Your task to perform on an android device: toggle location history Image 0: 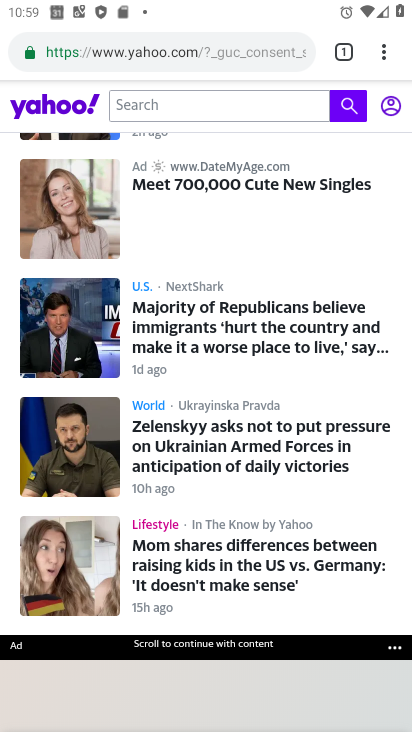
Step 0: press home button
Your task to perform on an android device: toggle location history Image 1: 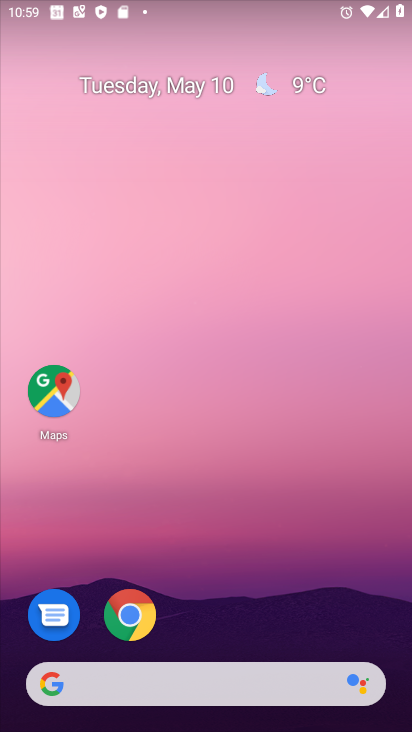
Step 1: drag from (208, 633) to (254, 186)
Your task to perform on an android device: toggle location history Image 2: 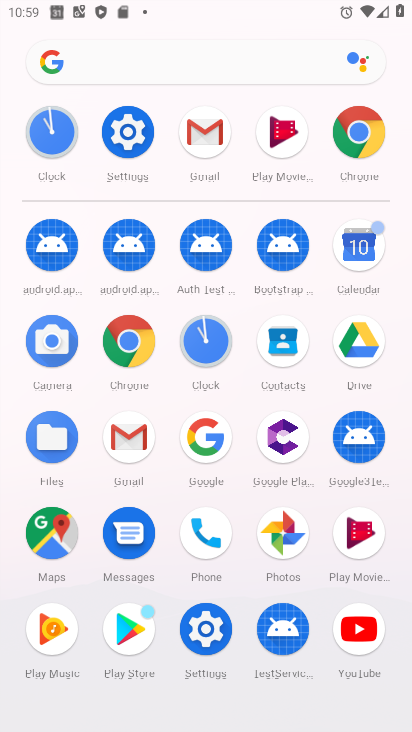
Step 2: click (132, 137)
Your task to perform on an android device: toggle location history Image 3: 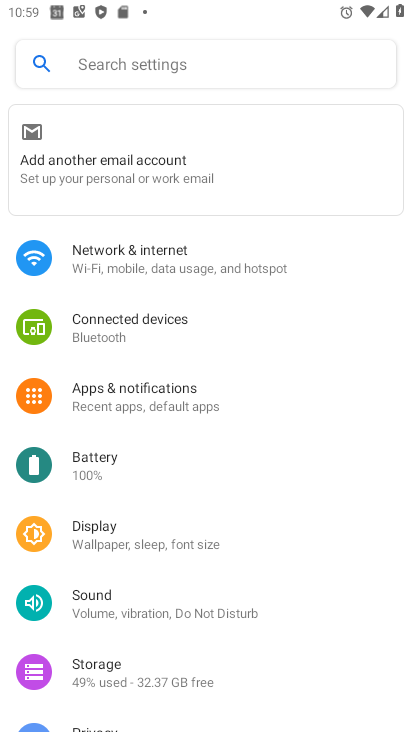
Step 3: drag from (146, 672) to (212, 257)
Your task to perform on an android device: toggle location history Image 4: 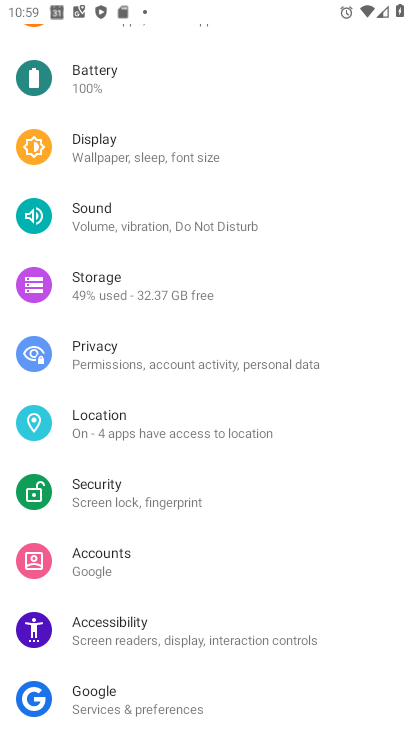
Step 4: click (111, 404)
Your task to perform on an android device: toggle location history Image 5: 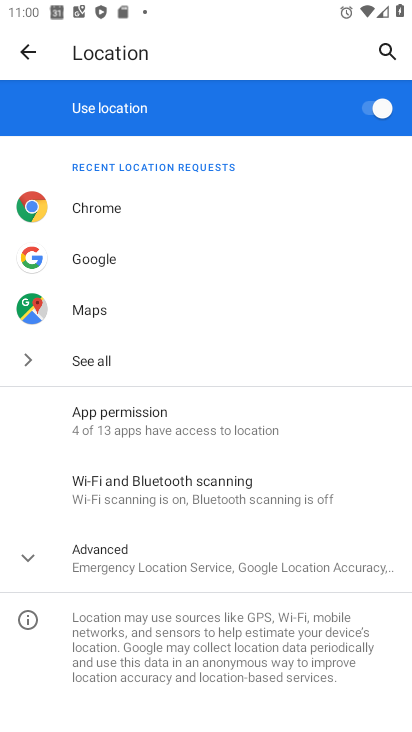
Step 5: click (83, 554)
Your task to perform on an android device: toggle location history Image 6: 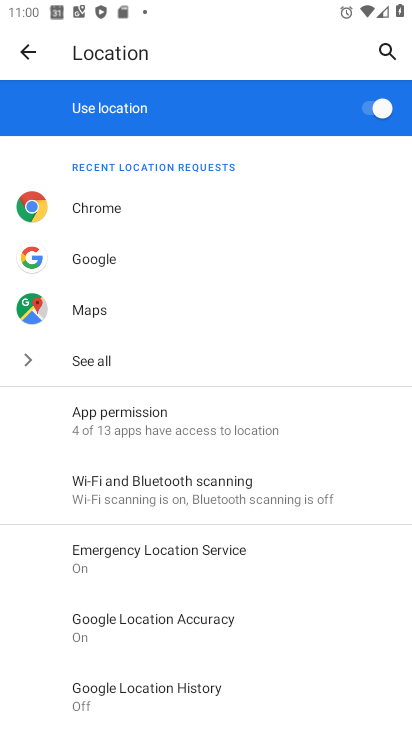
Step 6: click (177, 701)
Your task to perform on an android device: toggle location history Image 7: 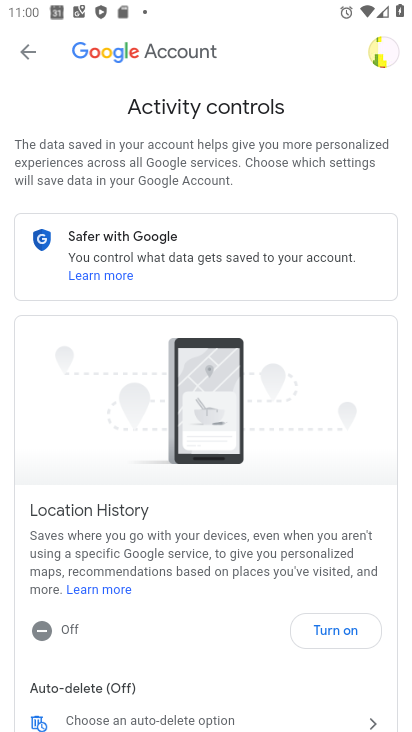
Step 7: task complete